Your task to perform on an android device: Open my contact list Image 0: 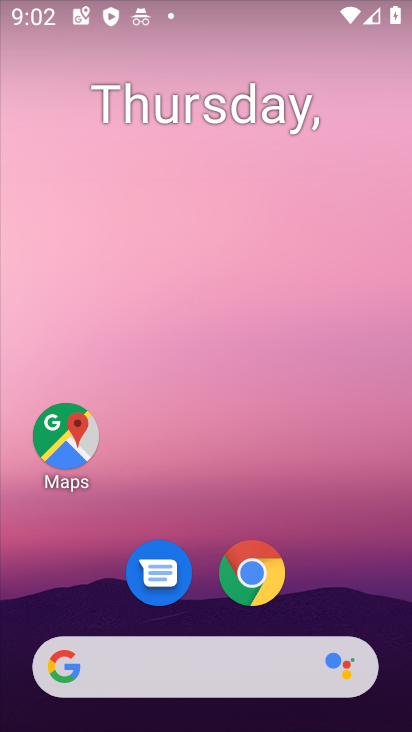
Step 0: drag from (329, 536) to (276, 189)
Your task to perform on an android device: Open my contact list Image 1: 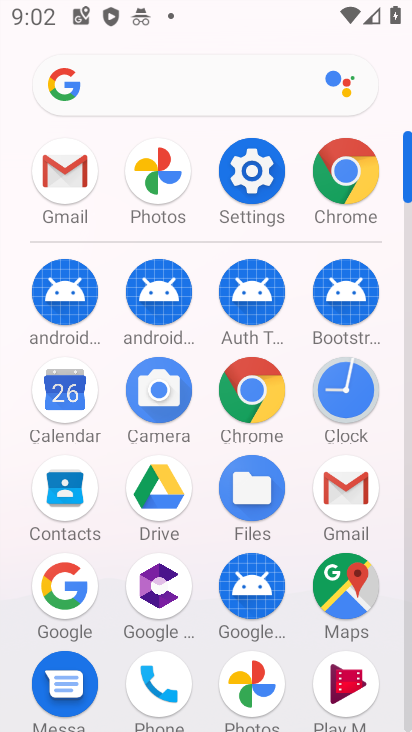
Step 1: click (74, 509)
Your task to perform on an android device: Open my contact list Image 2: 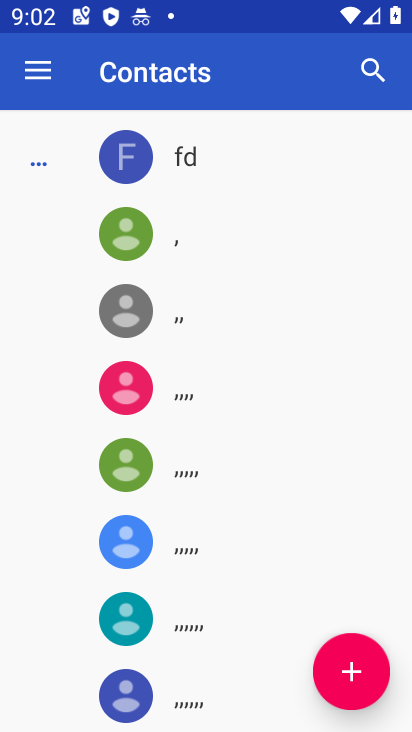
Step 2: task complete